Your task to perform on an android device: Open network settings Image 0: 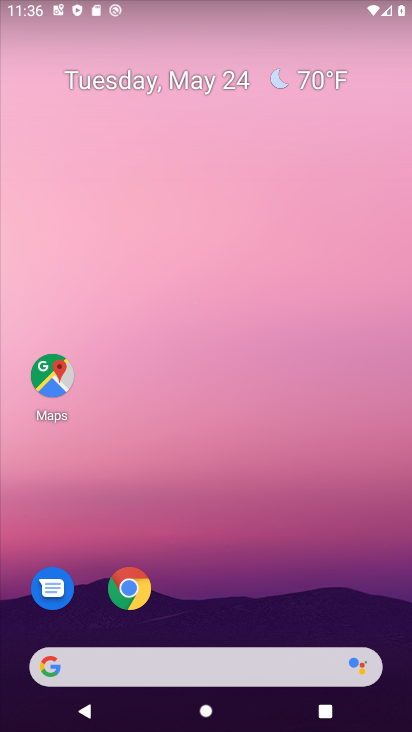
Step 0: press home button
Your task to perform on an android device: Open network settings Image 1: 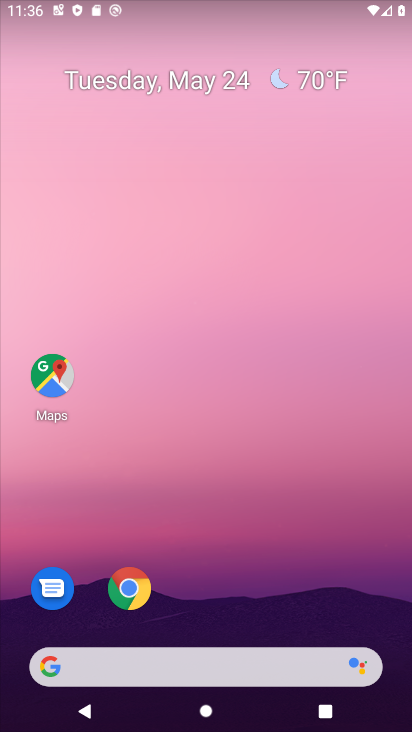
Step 1: drag from (199, 623) to (185, 54)
Your task to perform on an android device: Open network settings Image 2: 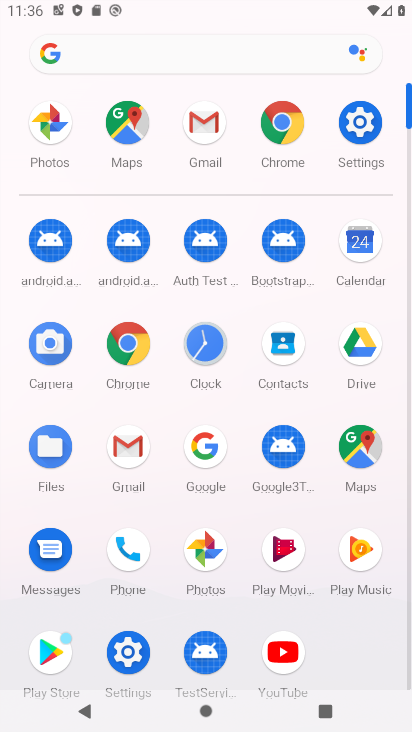
Step 2: click (354, 112)
Your task to perform on an android device: Open network settings Image 3: 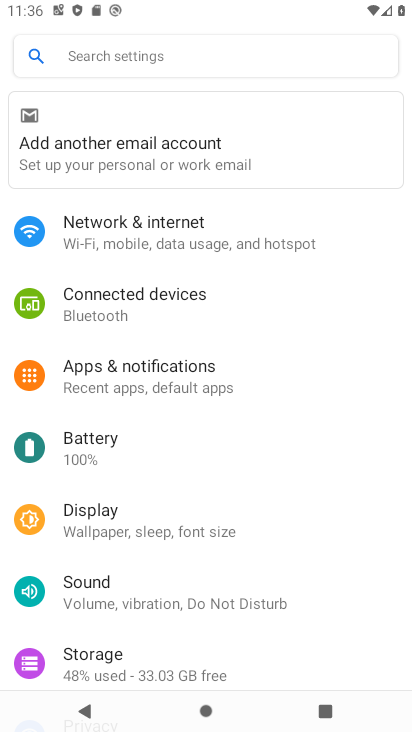
Step 3: click (211, 220)
Your task to perform on an android device: Open network settings Image 4: 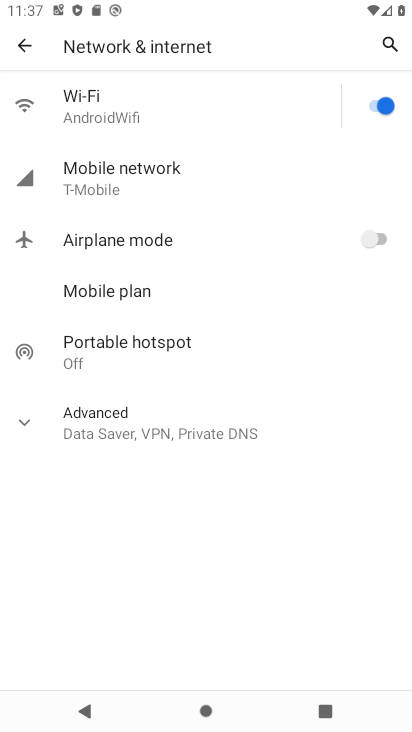
Step 4: click (35, 417)
Your task to perform on an android device: Open network settings Image 5: 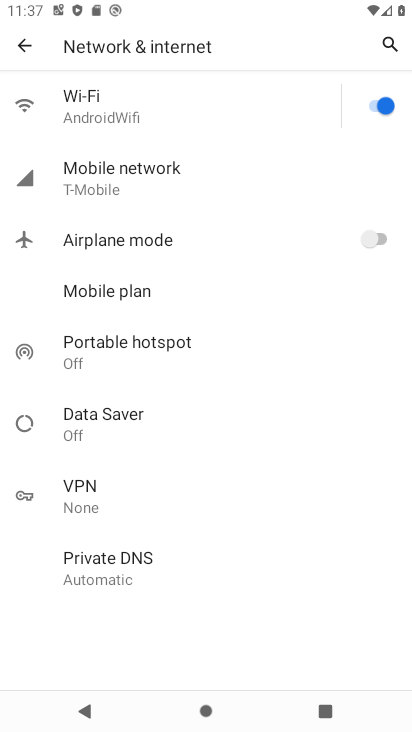
Step 5: task complete